Your task to perform on an android device: Set the phone to "Do not disturb". Image 0: 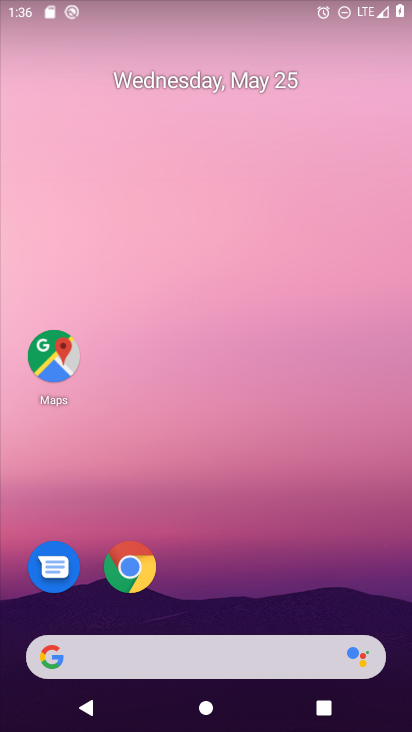
Step 0: drag from (406, 701) to (302, 246)
Your task to perform on an android device: Set the phone to "Do not disturb". Image 1: 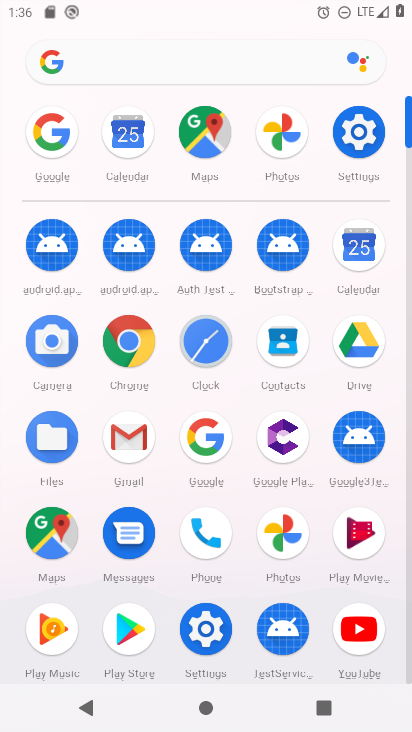
Step 1: click (350, 137)
Your task to perform on an android device: Set the phone to "Do not disturb". Image 2: 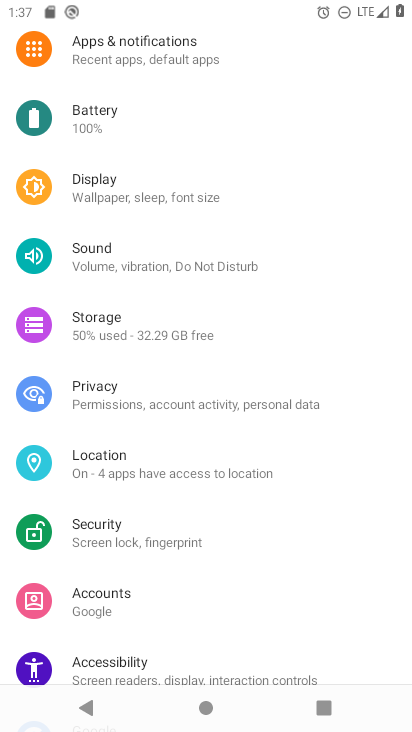
Step 2: click (105, 255)
Your task to perform on an android device: Set the phone to "Do not disturb". Image 3: 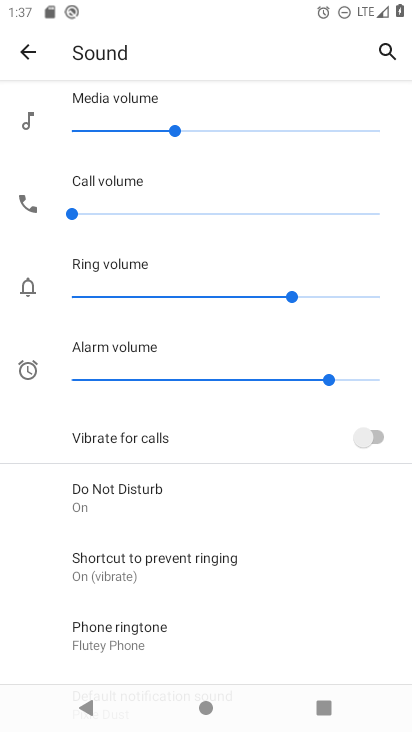
Step 3: click (141, 505)
Your task to perform on an android device: Set the phone to "Do not disturb". Image 4: 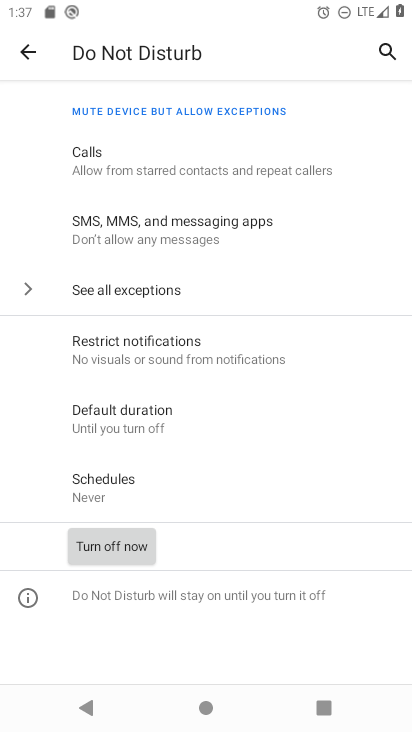
Step 4: task complete